Your task to perform on an android device: toggle sleep mode Image 0: 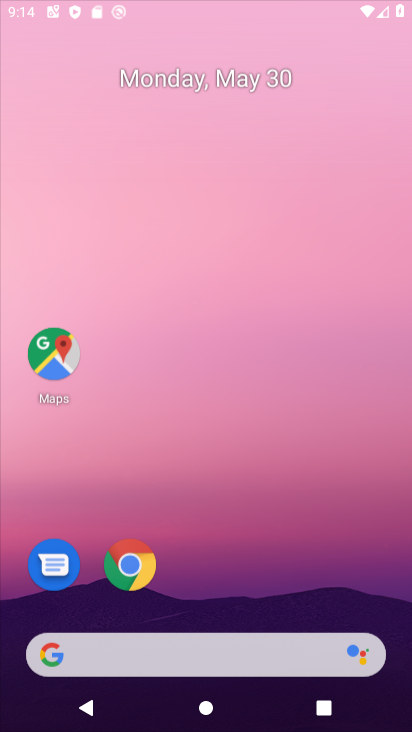
Step 0: click (261, 7)
Your task to perform on an android device: toggle sleep mode Image 1: 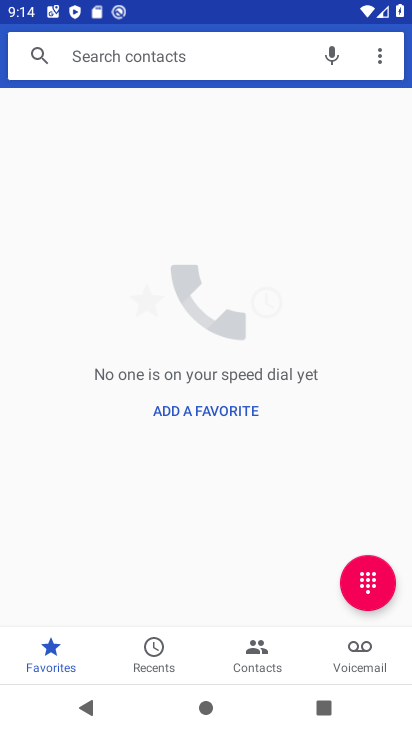
Step 1: drag from (273, 14) to (287, 649)
Your task to perform on an android device: toggle sleep mode Image 2: 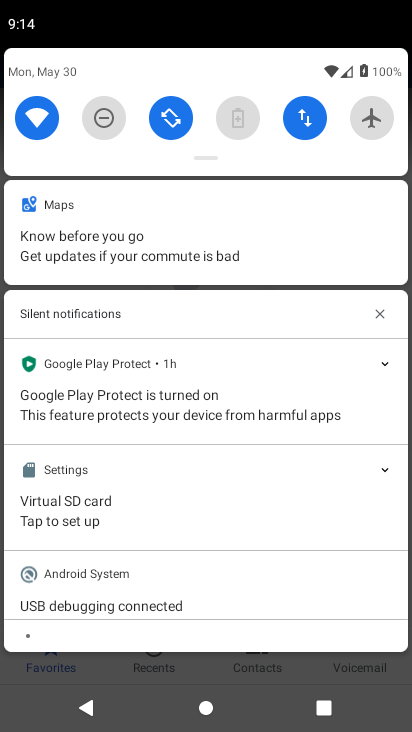
Step 2: drag from (203, 72) to (228, 706)
Your task to perform on an android device: toggle sleep mode Image 3: 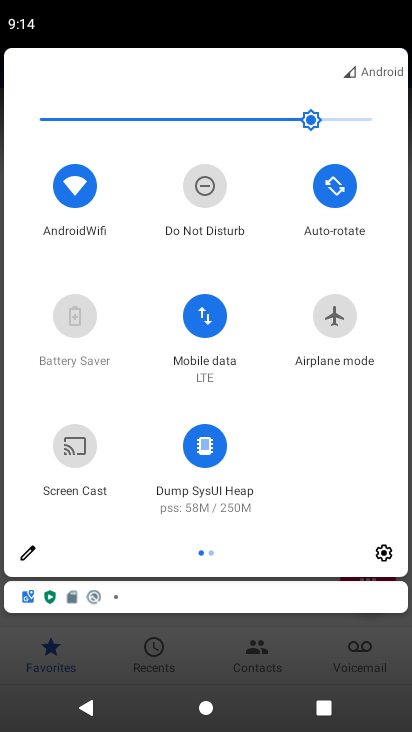
Step 3: click (377, 552)
Your task to perform on an android device: toggle sleep mode Image 4: 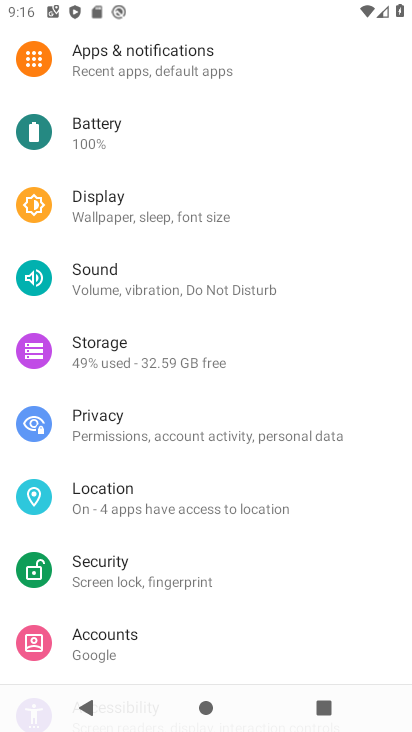
Step 4: task complete